Your task to perform on an android device: uninstall "Indeed Job Search" Image 0: 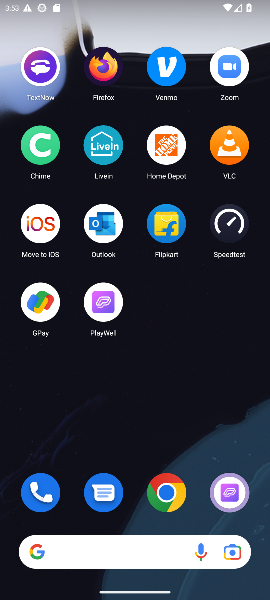
Step 0: drag from (134, 514) to (100, 101)
Your task to perform on an android device: uninstall "Indeed Job Search" Image 1: 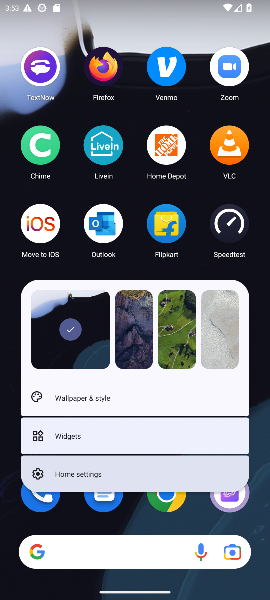
Step 1: click (131, 258)
Your task to perform on an android device: uninstall "Indeed Job Search" Image 2: 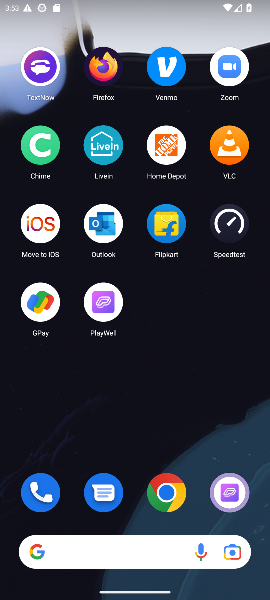
Step 2: press home button
Your task to perform on an android device: uninstall "Indeed Job Search" Image 3: 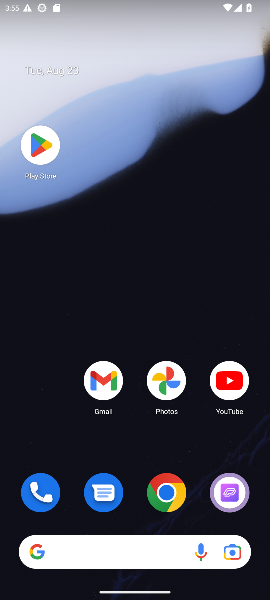
Step 3: click (46, 146)
Your task to perform on an android device: uninstall "Indeed Job Search" Image 4: 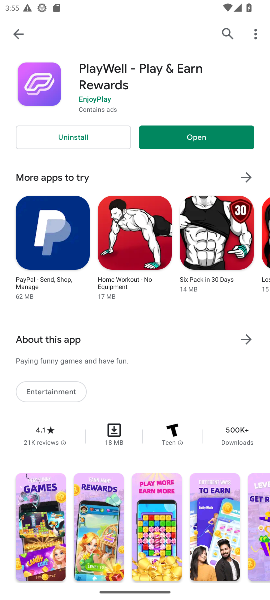
Step 4: click (213, 38)
Your task to perform on an android device: uninstall "Indeed Job Search" Image 5: 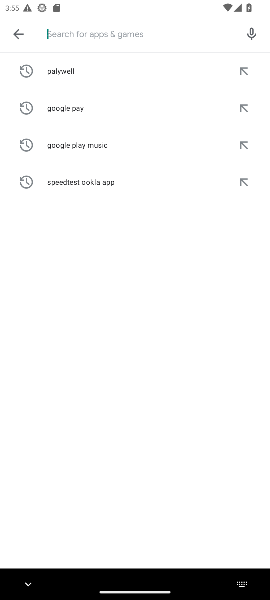
Step 5: type "indeed"
Your task to perform on an android device: uninstall "Indeed Job Search" Image 6: 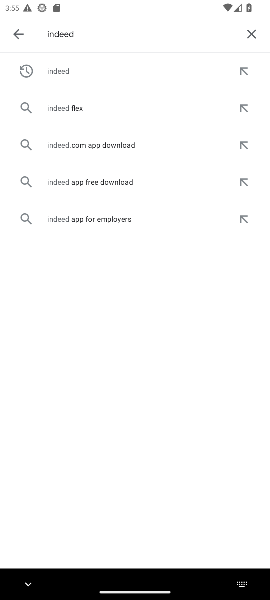
Step 6: click (115, 75)
Your task to perform on an android device: uninstall "Indeed Job Search" Image 7: 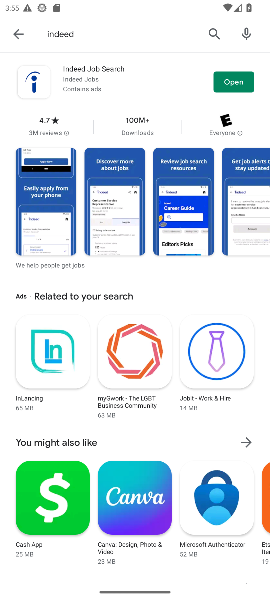
Step 7: click (220, 74)
Your task to perform on an android device: uninstall "Indeed Job Search" Image 8: 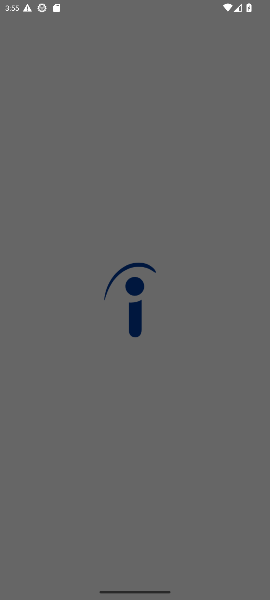
Step 8: task complete